Your task to perform on an android device: turn on wifi Image 0: 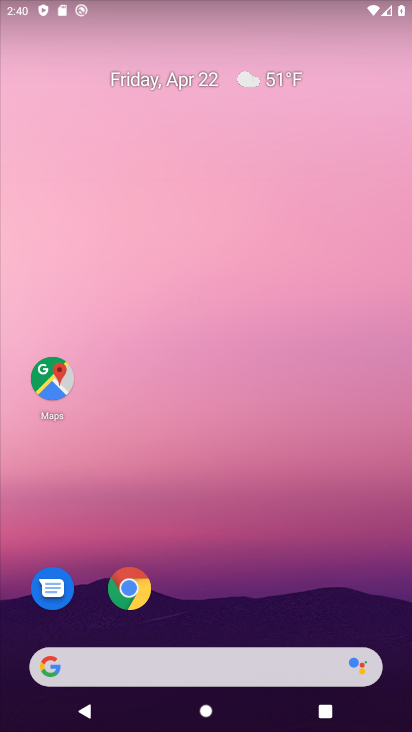
Step 0: drag from (362, 611) to (357, 4)
Your task to perform on an android device: turn on wifi Image 1: 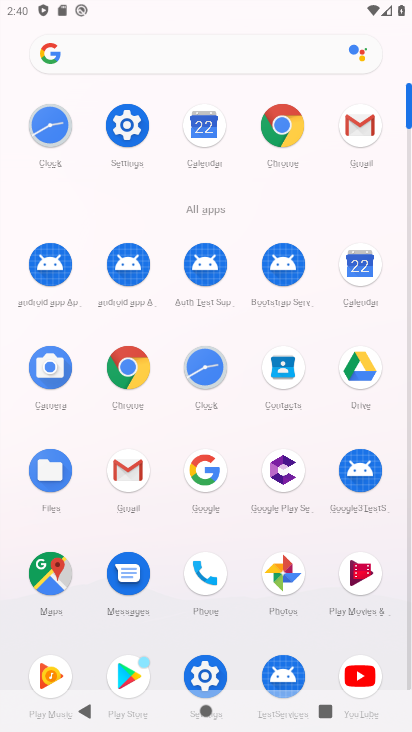
Step 1: click (120, 130)
Your task to perform on an android device: turn on wifi Image 2: 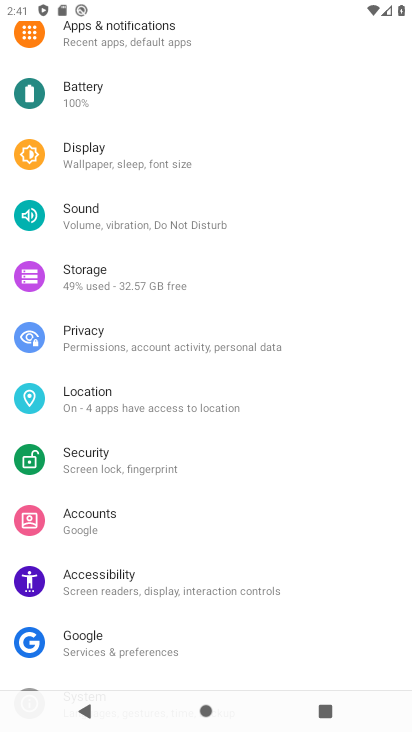
Step 2: drag from (325, 163) to (326, 446)
Your task to perform on an android device: turn on wifi Image 3: 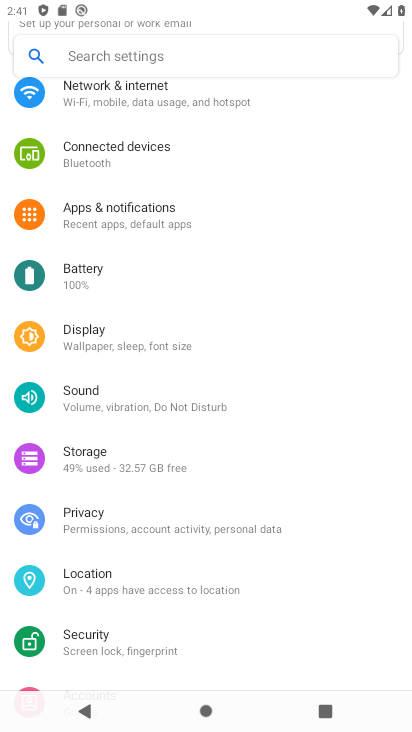
Step 3: click (143, 101)
Your task to perform on an android device: turn on wifi Image 4: 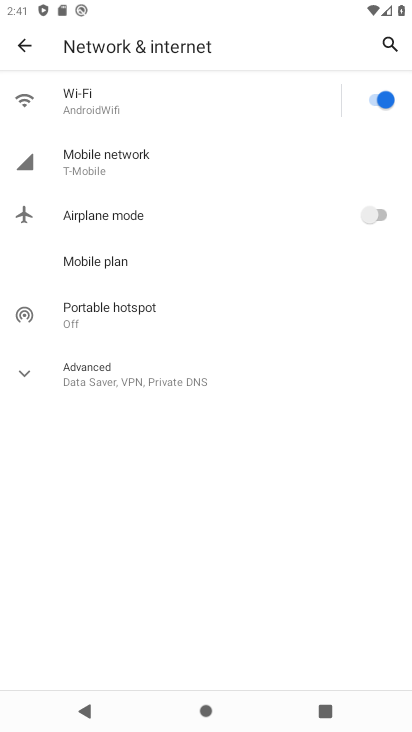
Step 4: task complete